Your task to perform on an android device: Open Google Chrome and open the bookmarks view Image 0: 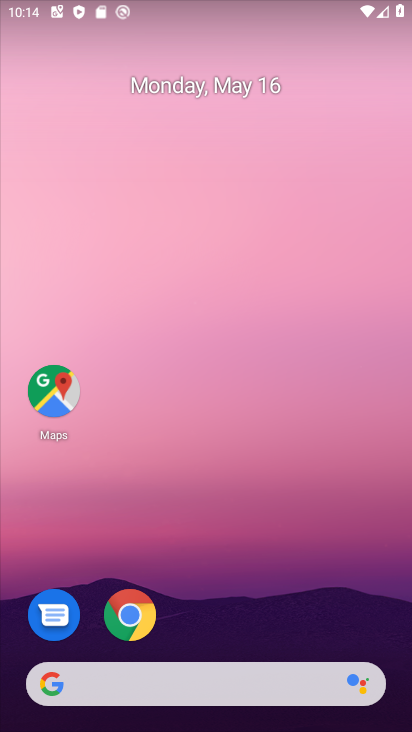
Step 0: press home button
Your task to perform on an android device: Open Google Chrome and open the bookmarks view Image 1: 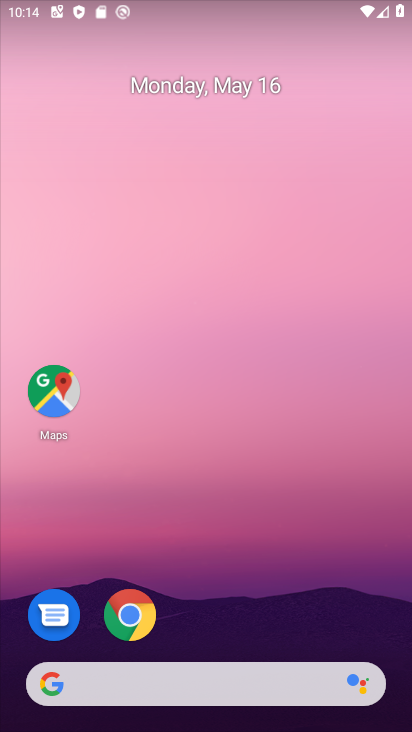
Step 1: drag from (295, 593) to (343, 243)
Your task to perform on an android device: Open Google Chrome and open the bookmarks view Image 2: 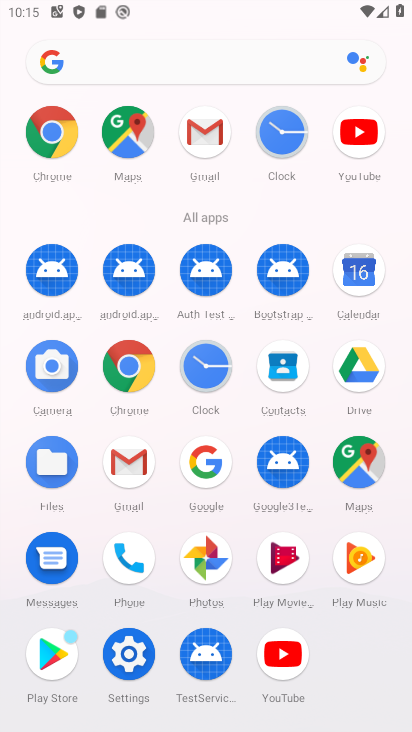
Step 2: click (58, 133)
Your task to perform on an android device: Open Google Chrome and open the bookmarks view Image 3: 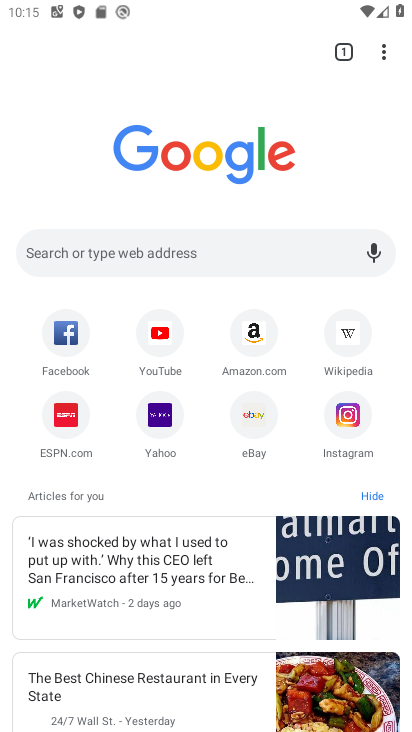
Step 3: click (385, 57)
Your task to perform on an android device: Open Google Chrome and open the bookmarks view Image 4: 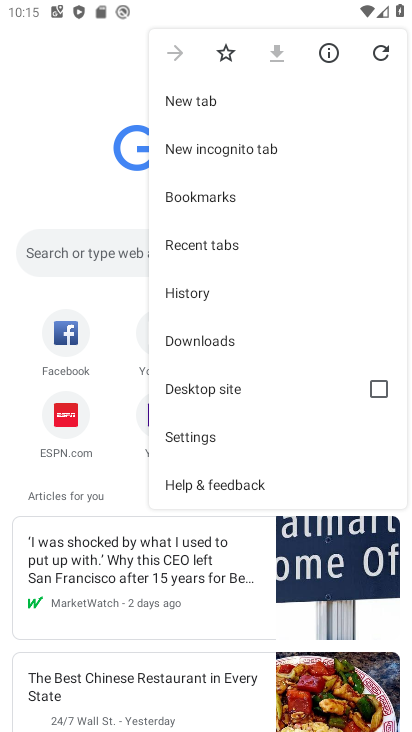
Step 4: click (219, 196)
Your task to perform on an android device: Open Google Chrome and open the bookmarks view Image 5: 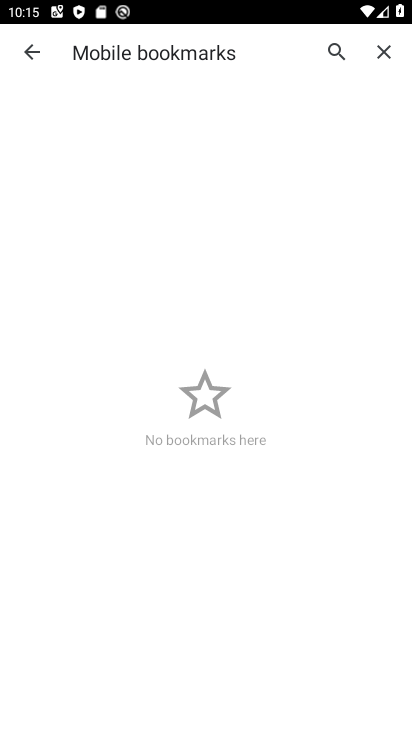
Step 5: task complete